Your task to perform on an android device: Search for Italian restaurants on Maps Image 0: 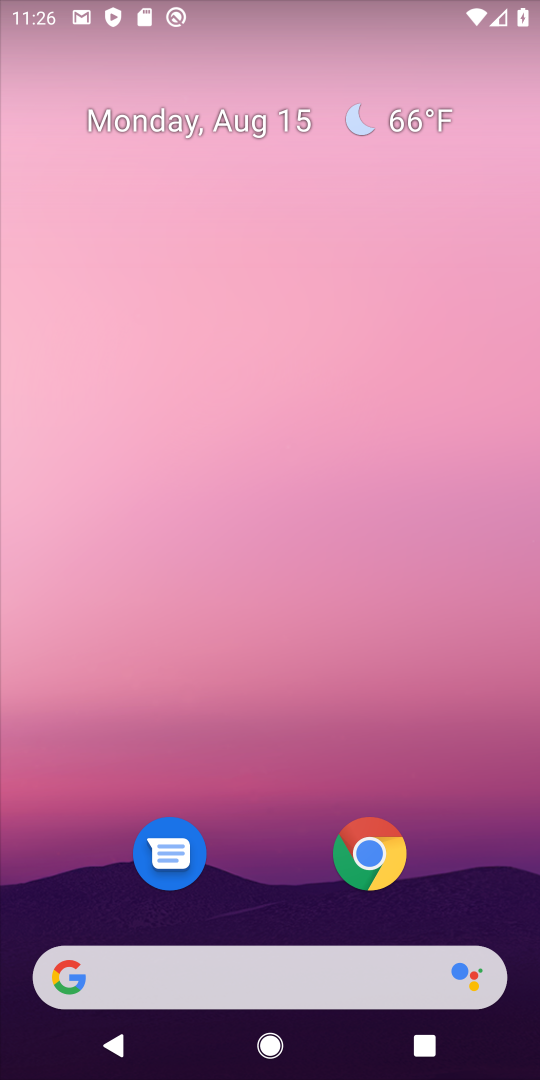
Step 0: drag from (261, 665) to (283, 304)
Your task to perform on an android device: Search for Italian restaurants on Maps Image 1: 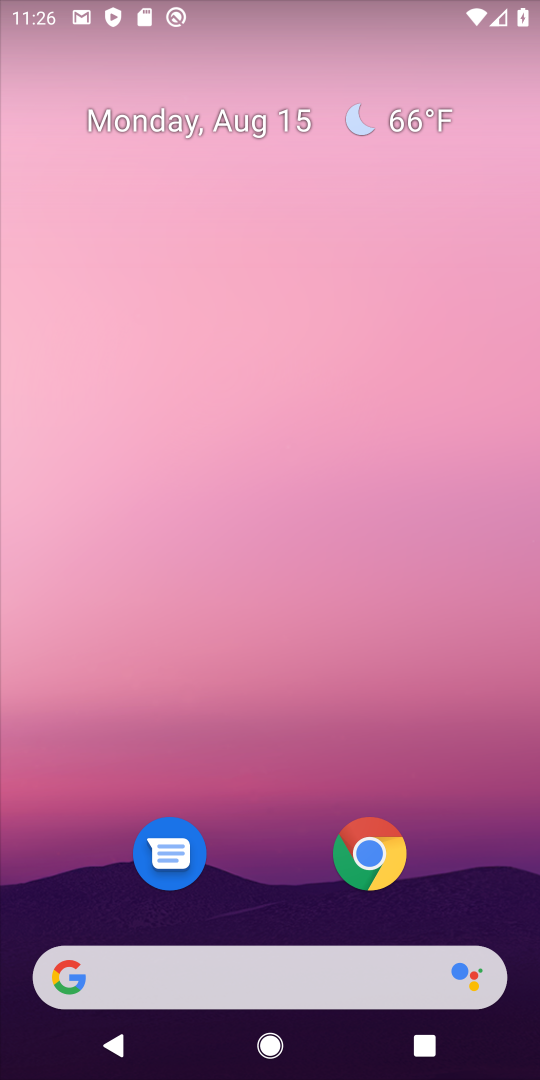
Step 1: drag from (265, 974) to (275, 339)
Your task to perform on an android device: Search for Italian restaurants on Maps Image 2: 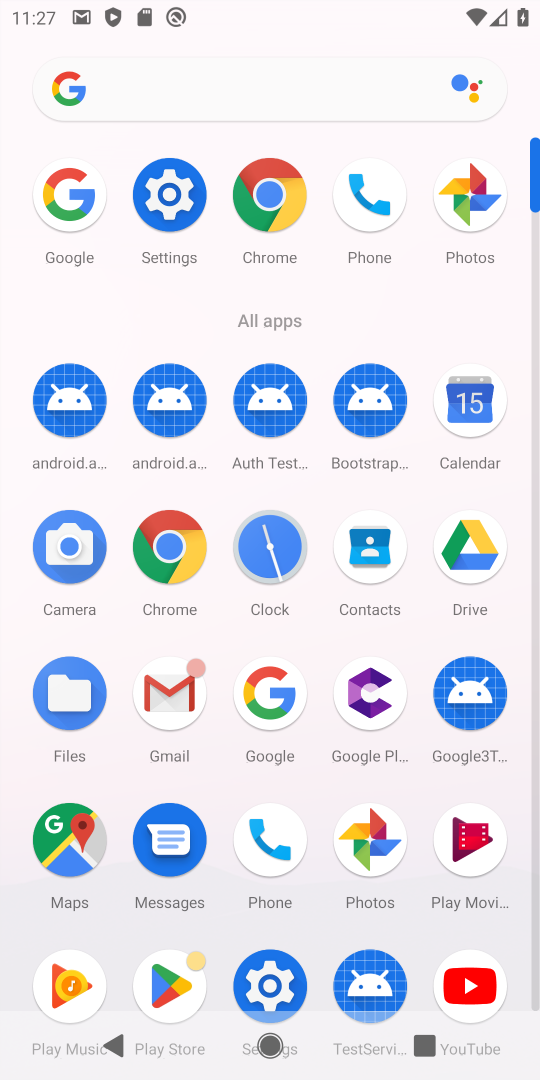
Step 2: click (68, 852)
Your task to perform on an android device: Search for Italian restaurants on Maps Image 3: 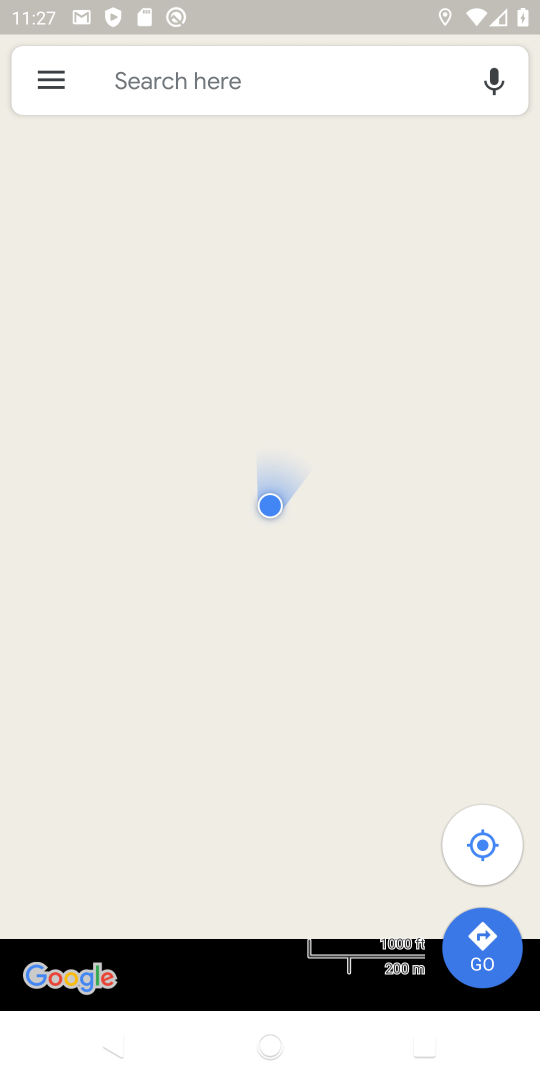
Step 3: click (186, 91)
Your task to perform on an android device: Search for Italian restaurants on Maps Image 4: 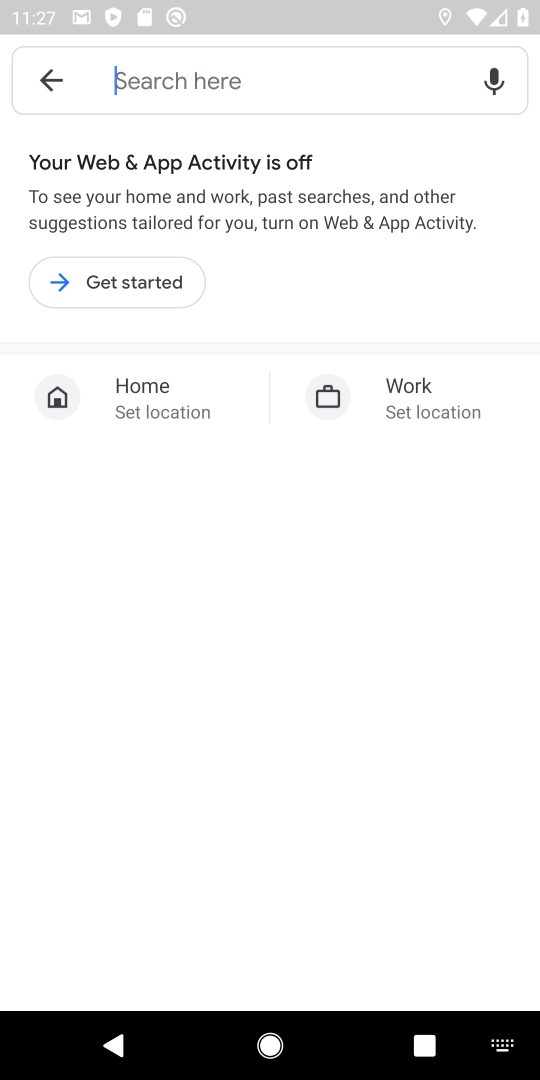
Step 4: click (184, 83)
Your task to perform on an android device: Search for Italian restaurants on Maps Image 5: 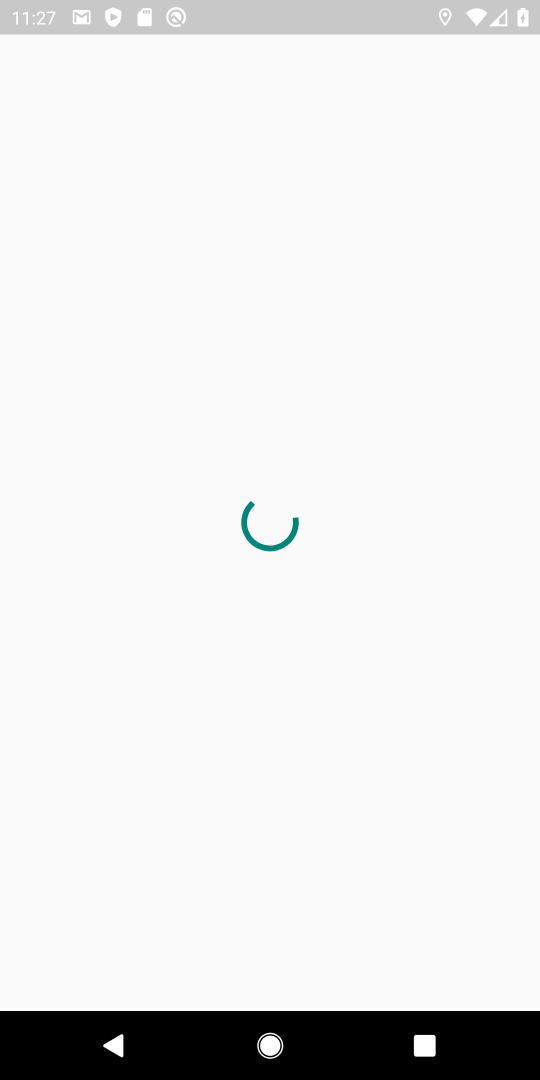
Step 5: click (208, 488)
Your task to perform on an android device: Search for Italian restaurants on Maps Image 6: 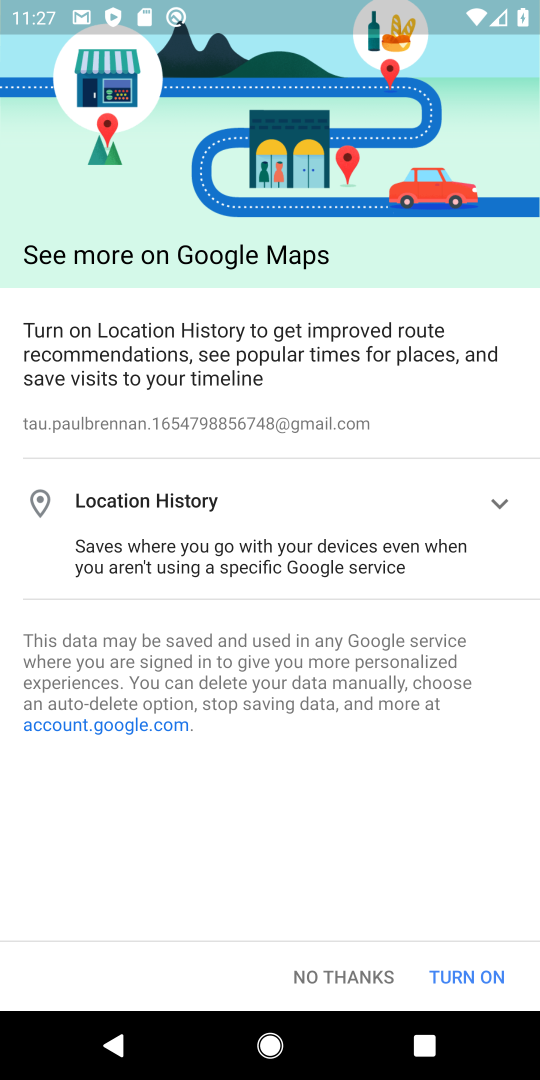
Step 6: click (485, 978)
Your task to perform on an android device: Search for Italian restaurants on Maps Image 7: 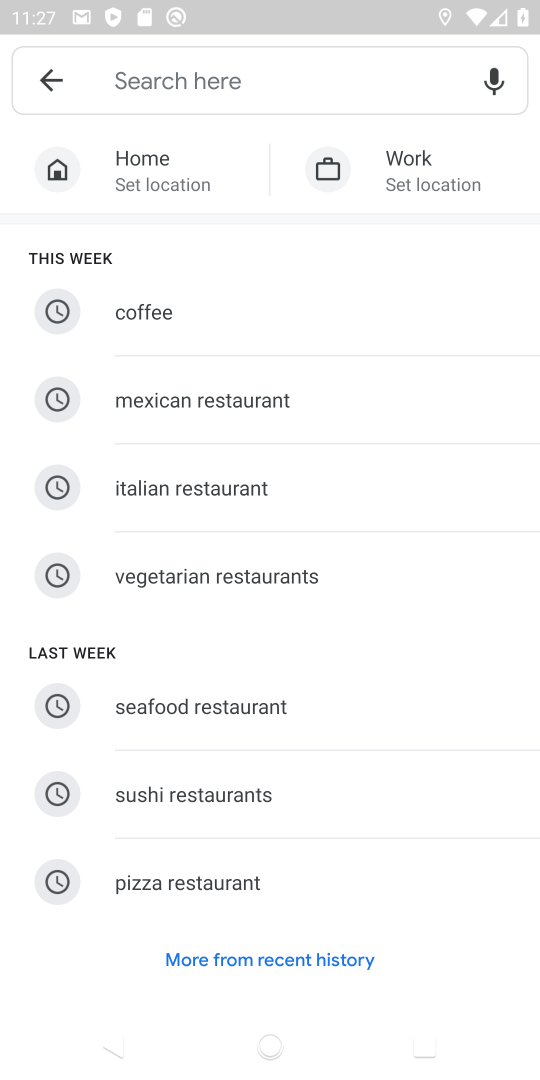
Step 7: click (232, 491)
Your task to perform on an android device: Search for Italian restaurants on Maps Image 8: 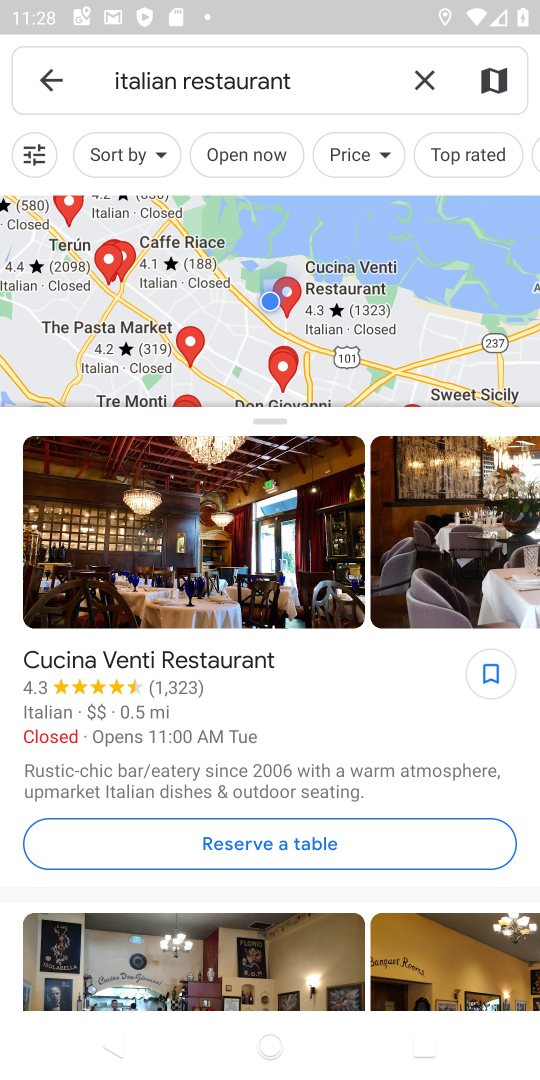
Step 8: task complete